Your task to perform on an android device: Open the calendar app, open the side menu, and click the "Day" option Image 0: 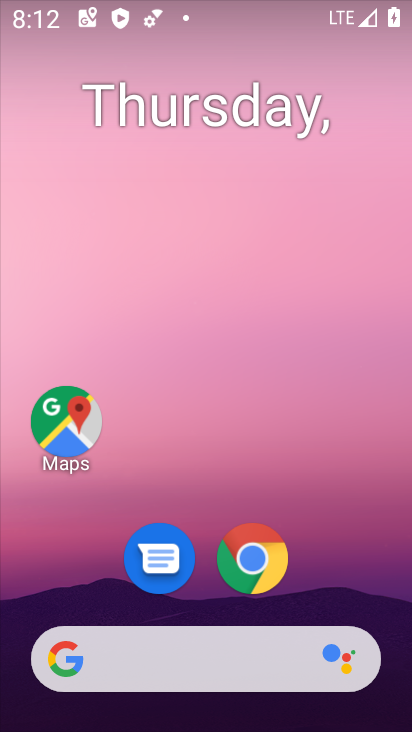
Step 0: drag from (239, 621) to (270, 153)
Your task to perform on an android device: Open the calendar app, open the side menu, and click the "Day" option Image 1: 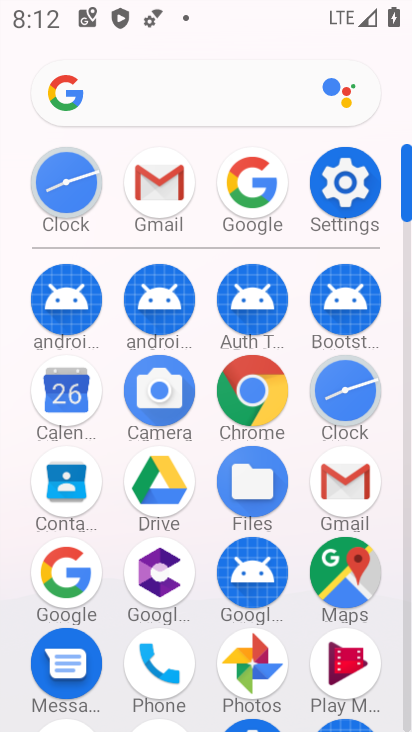
Step 1: click (68, 396)
Your task to perform on an android device: Open the calendar app, open the side menu, and click the "Day" option Image 2: 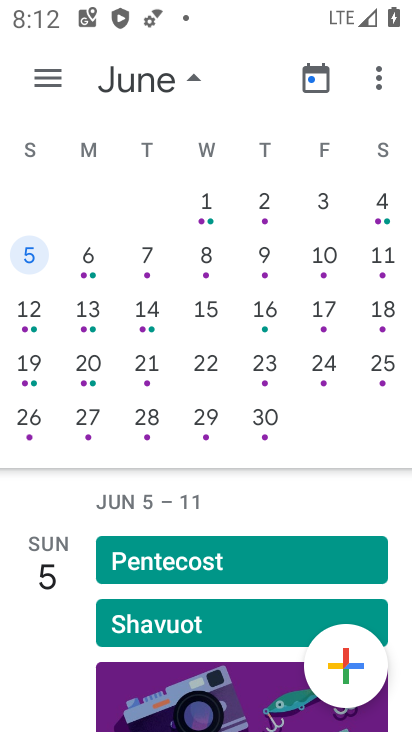
Step 2: click (46, 80)
Your task to perform on an android device: Open the calendar app, open the side menu, and click the "Day" option Image 3: 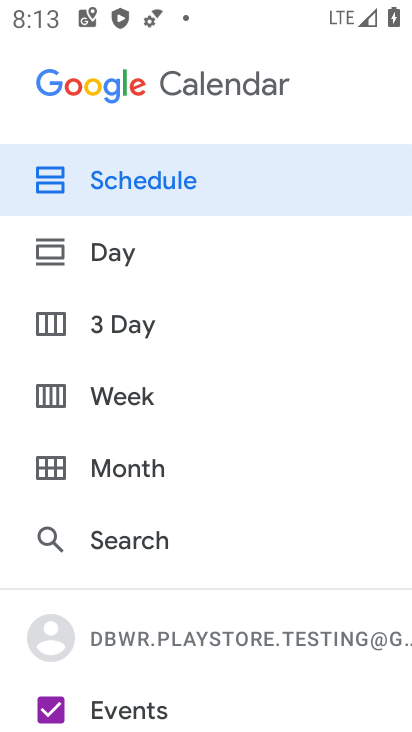
Step 3: click (109, 257)
Your task to perform on an android device: Open the calendar app, open the side menu, and click the "Day" option Image 4: 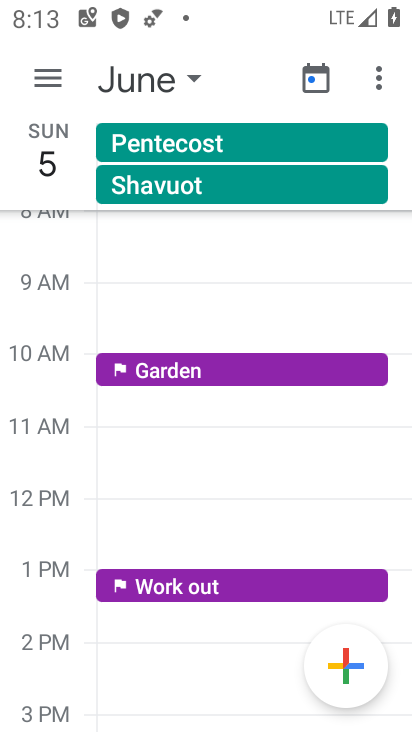
Step 4: task complete